Your task to perform on an android device: Open display settings Image 0: 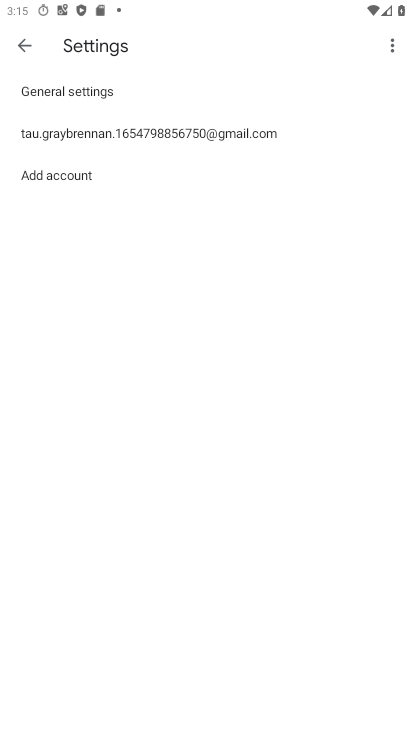
Step 0: click (22, 38)
Your task to perform on an android device: Open display settings Image 1: 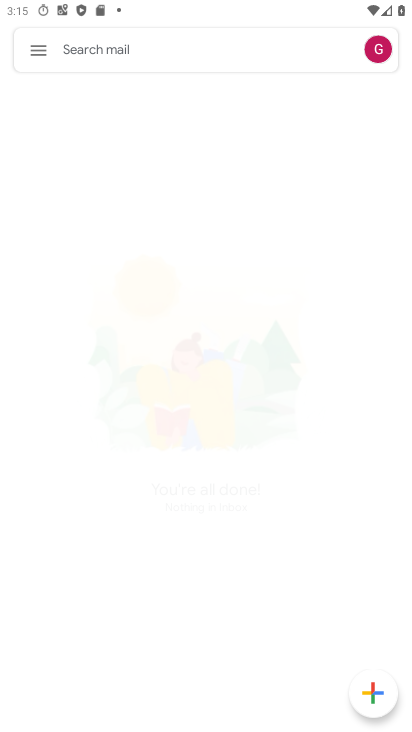
Step 1: press back button
Your task to perform on an android device: Open display settings Image 2: 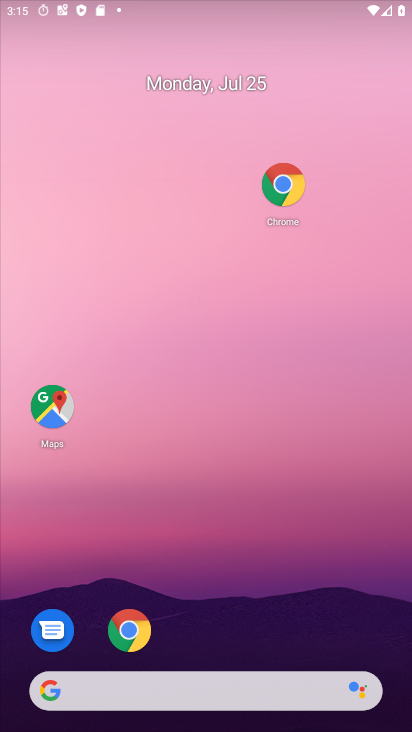
Step 2: drag from (305, 646) to (319, 160)
Your task to perform on an android device: Open display settings Image 3: 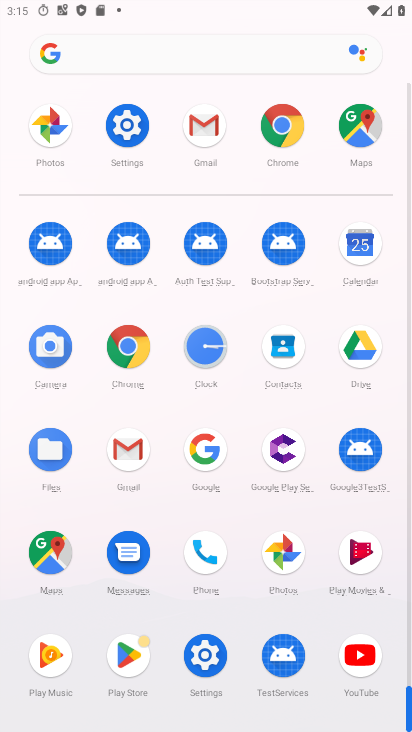
Step 3: click (195, 648)
Your task to perform on an android device: Open display settings Image 4: 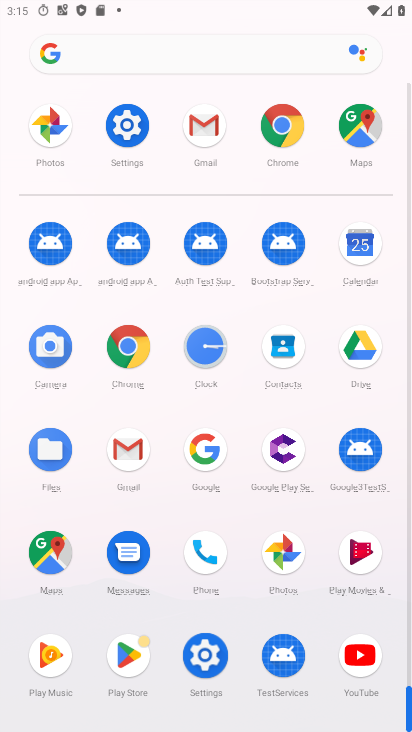
Step 4: click (208, 658)
Your task to perform on an android device: Open display settings Image 5: 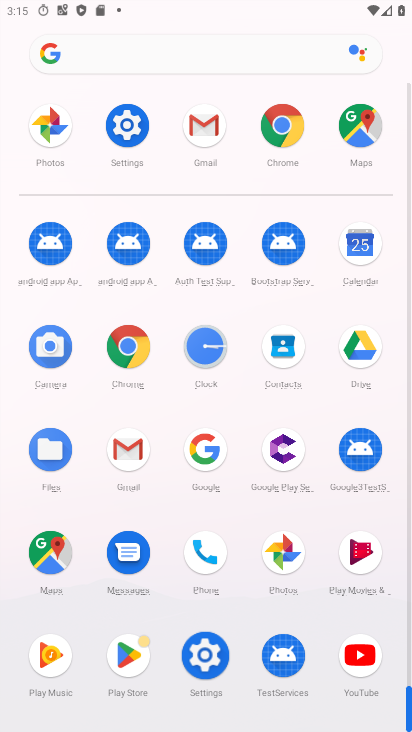
Step 5: click (211, 659)
Your task to perform on an android device: Open display settings Image 6: 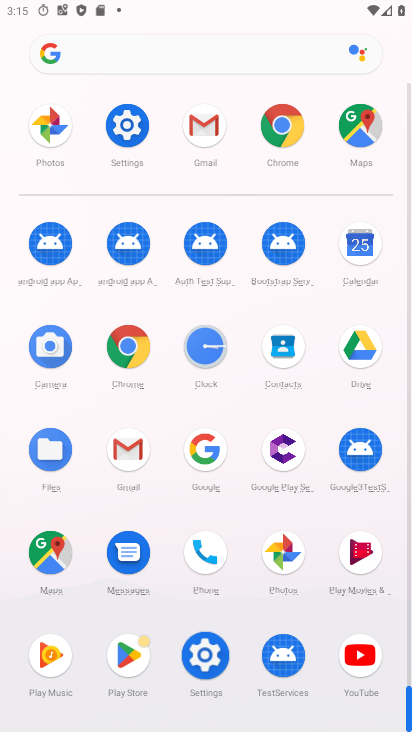
Step 6: click (188, 666)
Your task to perform on an android device: Open display settings Image 7: 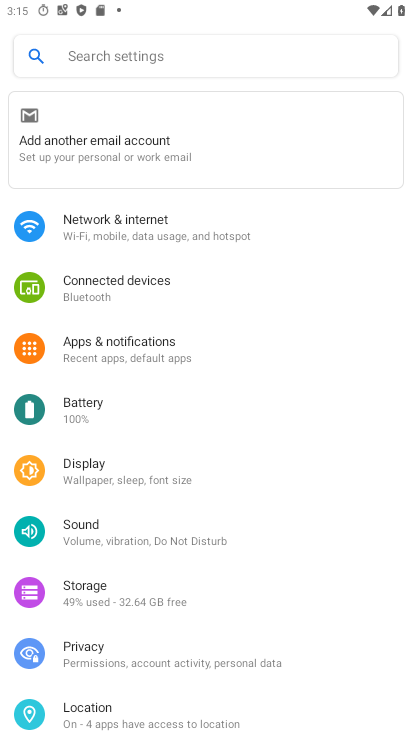
Step 7: click (84, 461)
Your task to perform on an android device: Open display settings Image 8: 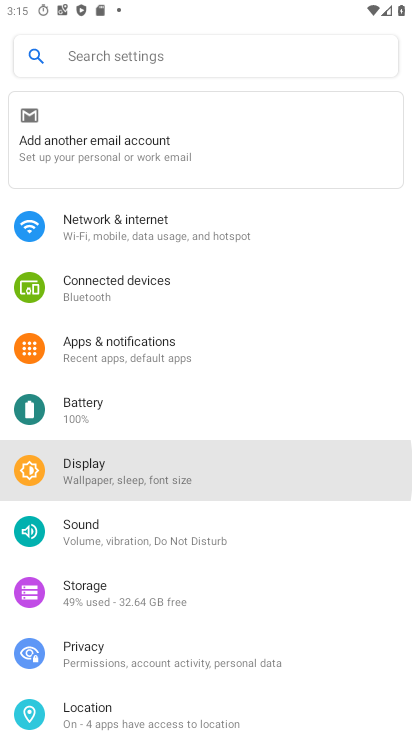
Step 8: click (91, 451)
Your task to perform on an android device: Open display settings Image 9: 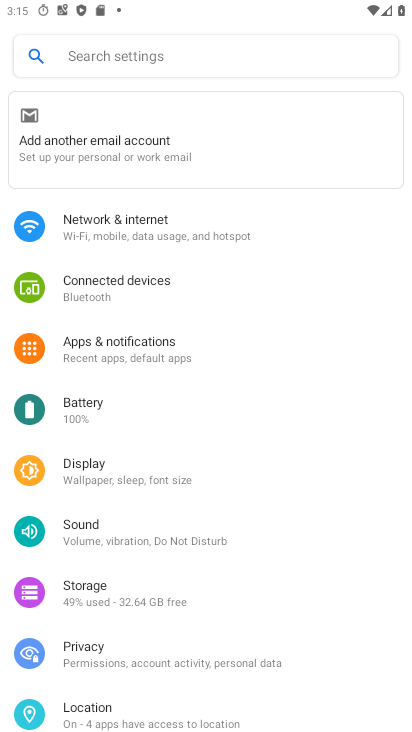
Step 9: click (94, 452)
Your task to perform on an android device: Open display settings Image 10: 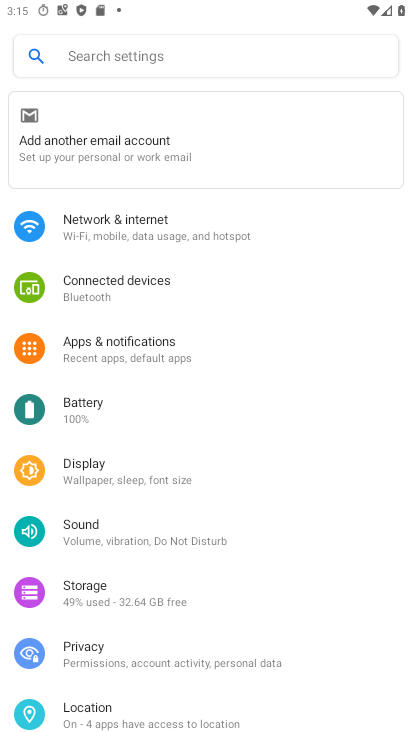
Step 10: click (95, 453)
Your task to perform on an android device: Open display settings Image 11: 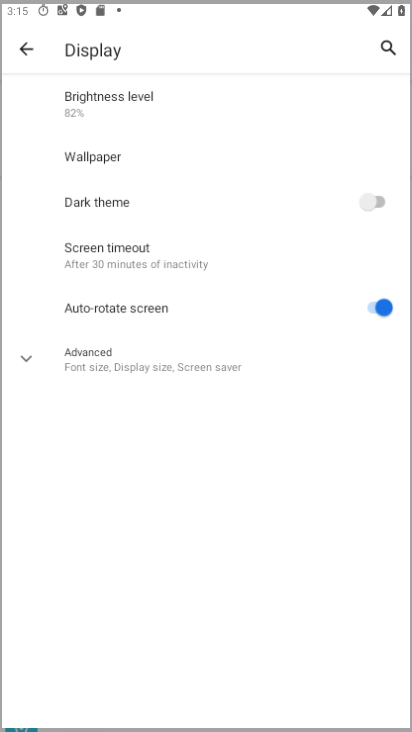
Step 11: click (97, 454)
Your task to perform on an android device: Open display settings Image 12: 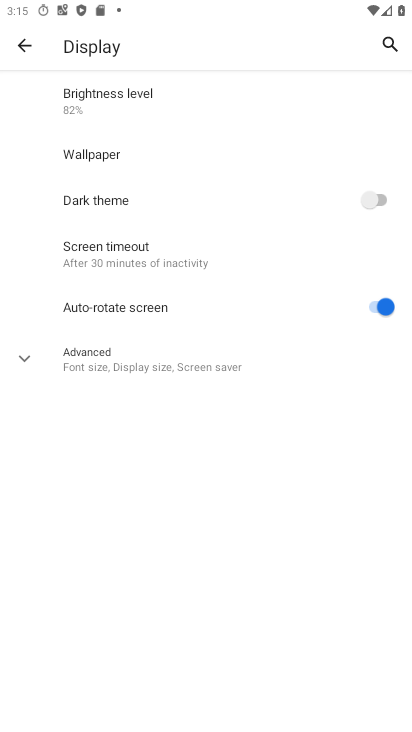
Step 12: task complete